Your task to perform on an android device: turn on wifi Image 0: 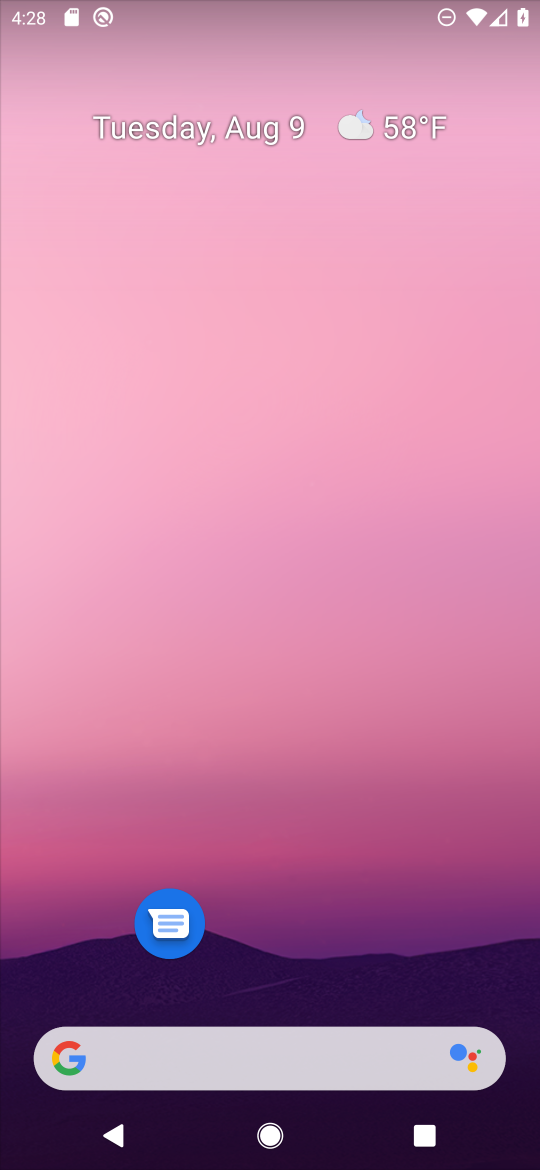
Step 0: drag from (427, 16) to (366, 747)
Your task to perform on an android device: turn on wifi Image 1: 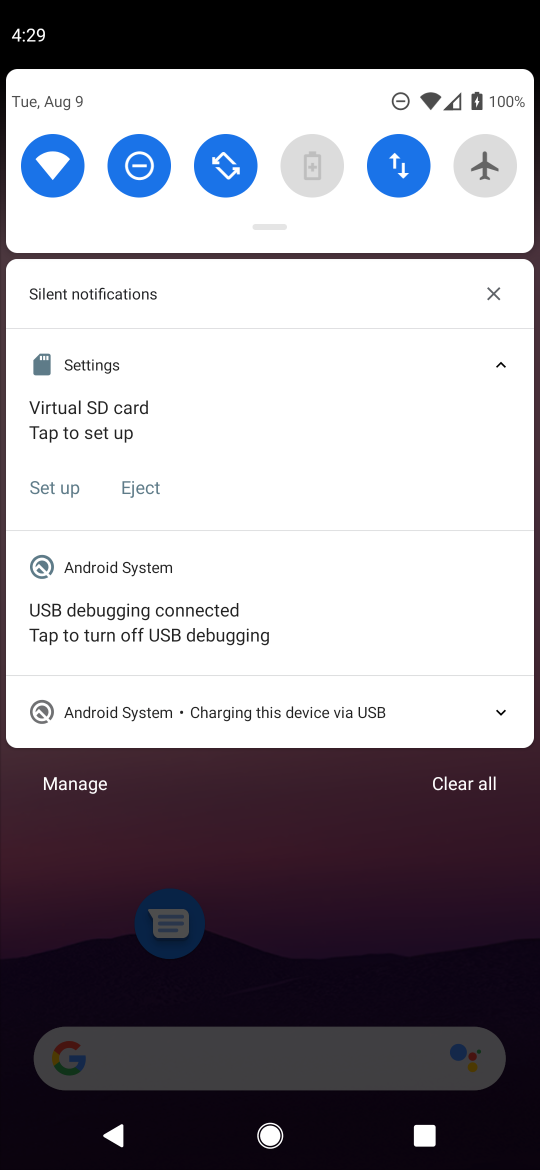
Step 1: task complete